Your task to perform on an android device: add a label to a message in the gmail app Image 0: 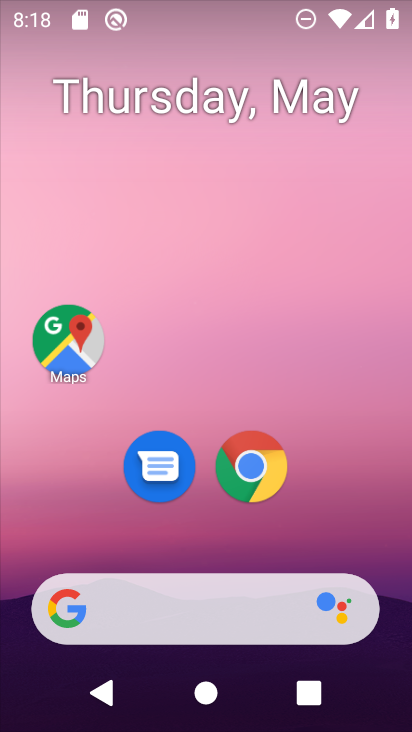
Step 0: drag from (242, 617) to (233, 83)
Your task to perform on an android device: add a label to a message in the gmail app Image 1: 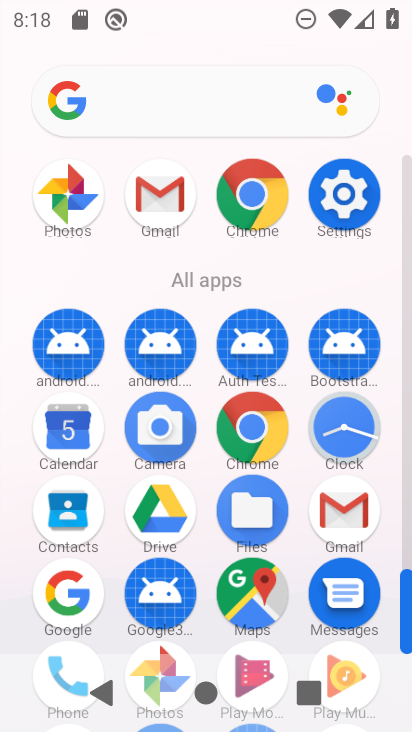
Step 1: click (171, 190)
Your task to perform on an android device: add a label to a message in the gmail app Image 2: 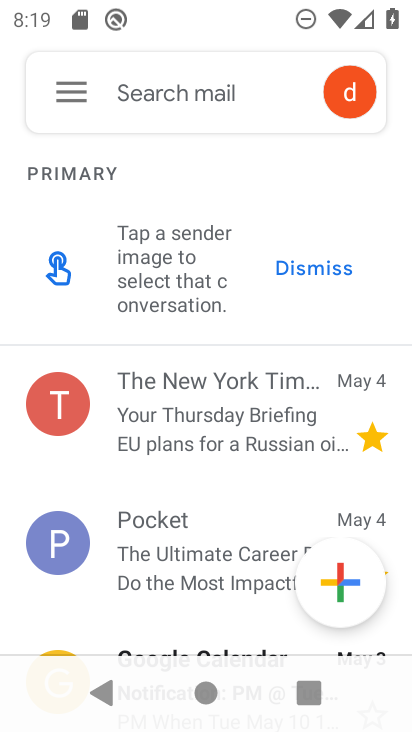
Step 2: click (71, 387)
Your task to perform on an android device: add a label to a message in the gmail app Image 3: 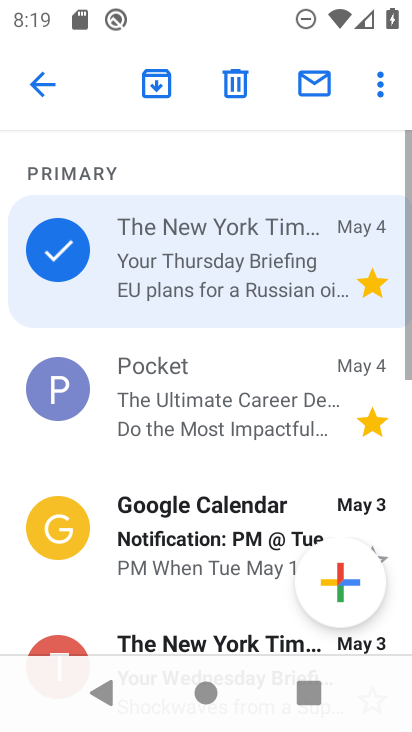
Step 3: click (381, 90)
Your task to perform on an android device: add a label to a message in the gmail app Image 4: 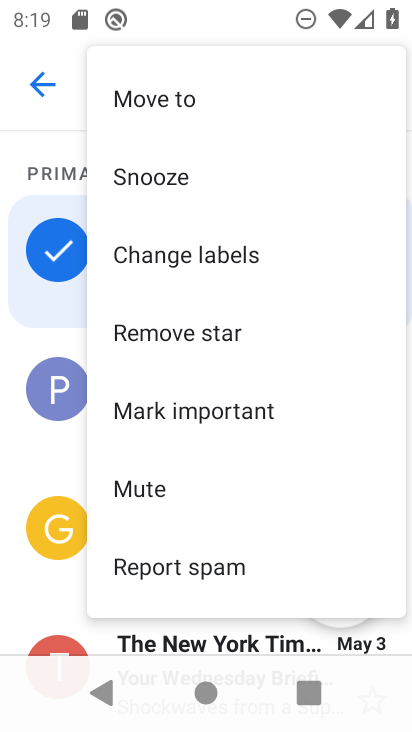
Step 4: click (278, 259)
Your task to perform on an android device: add a label to a message in the gmail app Image 5: 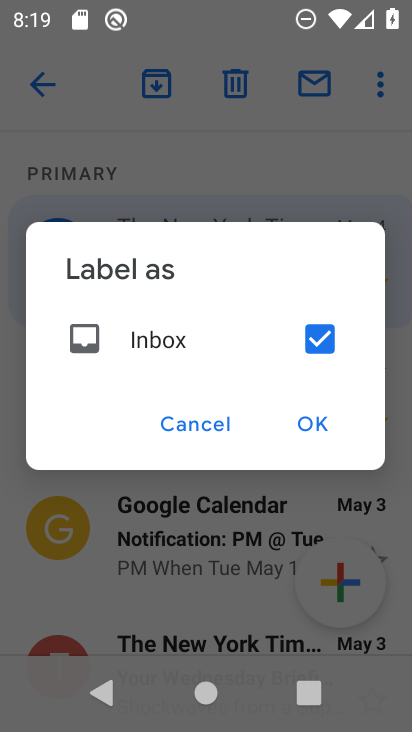
Step 5: click (319, 349)
Your task to perform on an android device: add a label to a message in the gmail app Image 6: 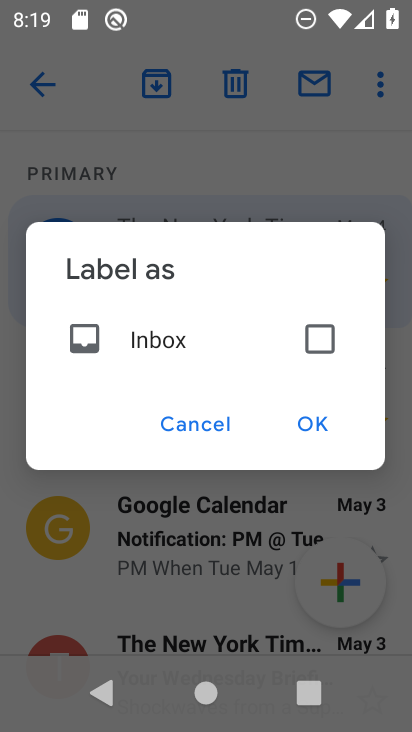
Step 6: click (316, 427)
Your task to perform on an android device: add a label to a message in the gmail app Image 7: 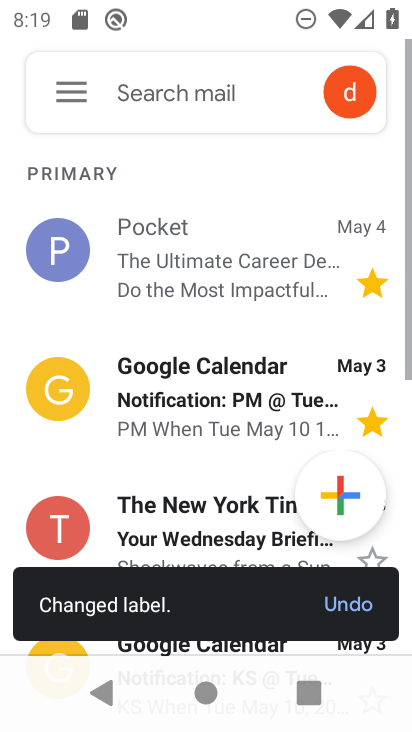
Step 7: task complete